Your task to perform on an android device: toggle javascript in the chrome app Image 0: 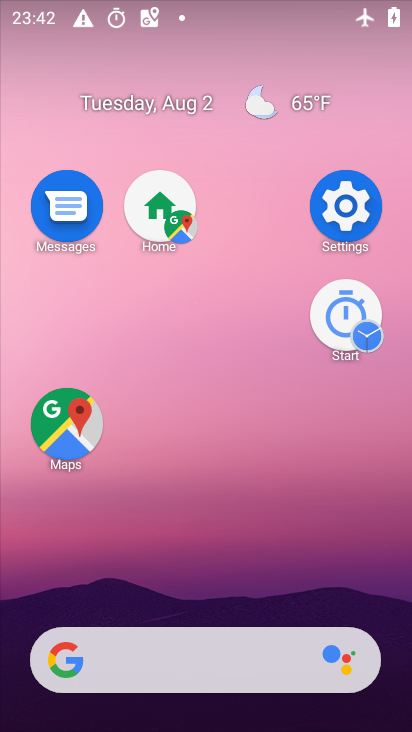
Step 0: drag from (273, 660) to (260, 294)
Your task to perform on an android device: toggle javascript in the chrome app Image 1: 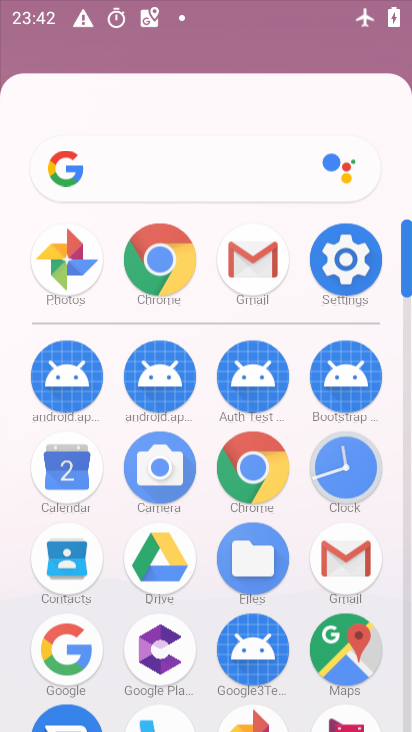
Step 1: drag from (242, 564) to (248, 243)
Your task to perform on an android device: toggle javascript in the chrome app Image 2: 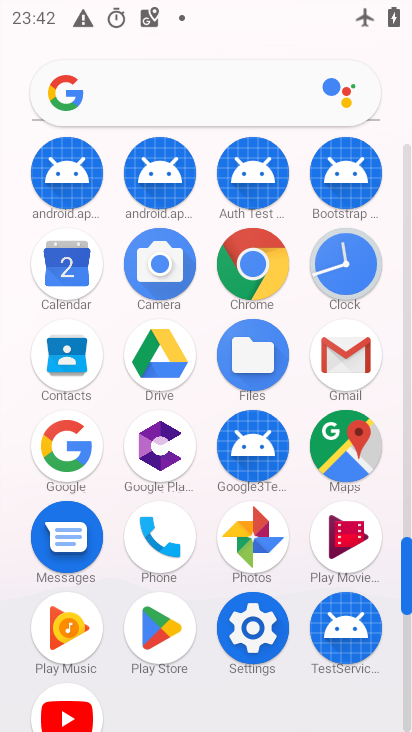
Step 2: click (266, 270)
Your task to perform on an android device: toggle javascript in the chrome app Image 3: 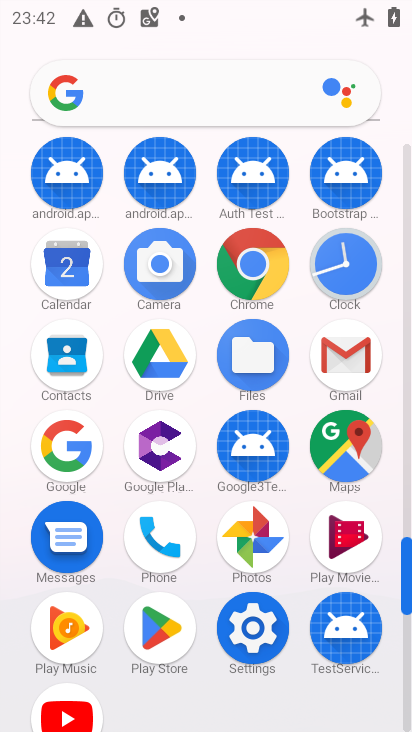
Step 3: click (260, 267)
Your task to perform on an android device: toggle javascript in the chrome app Image 4: 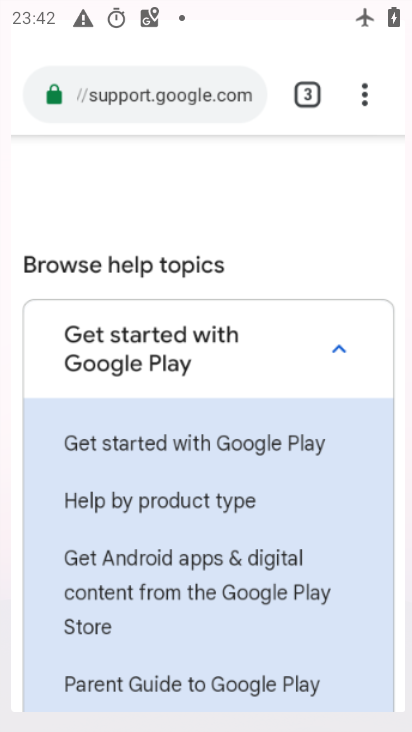
Step 4: click (233, 272)
Your task to perform on an android device: toggle javascript in the chrome app Image 5: 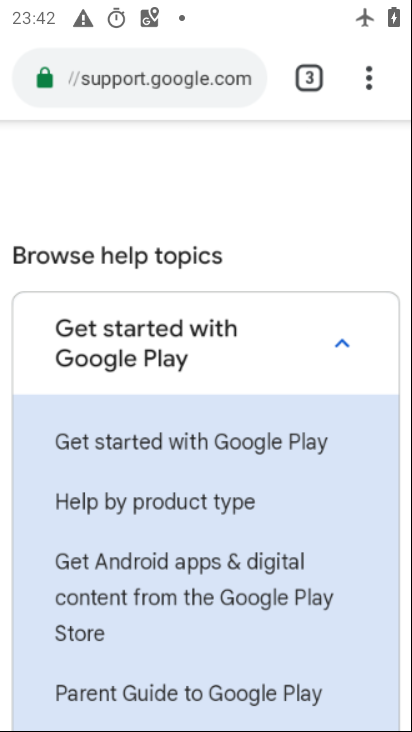
Step 5: click (209, 275)
Your task to perform on an android device: toggle javascript in the chrome app Image 6: 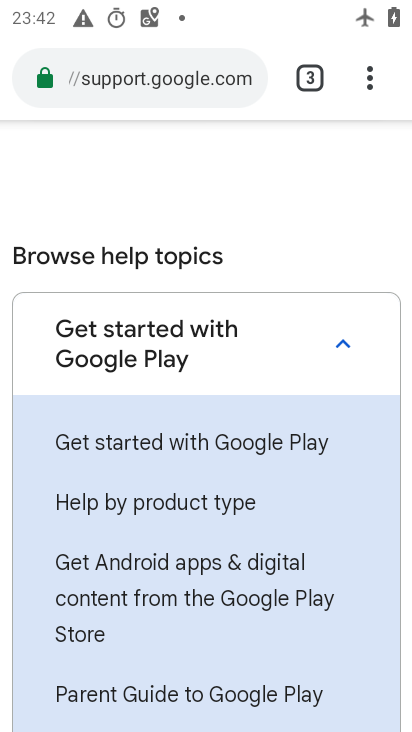
Step 6: click (272, 530)
Your task to perform on an android device: toggle javascript in the chrome app Image 7: 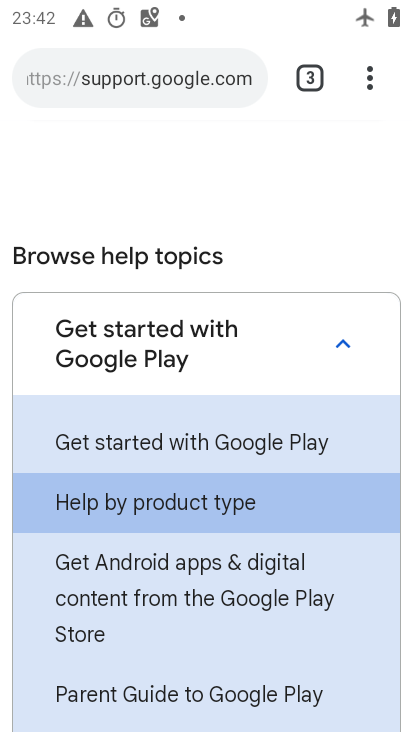
Step 7: click (284, 458)
Your task to perform on an android device: toggle javascript in the chrome app Image 8: 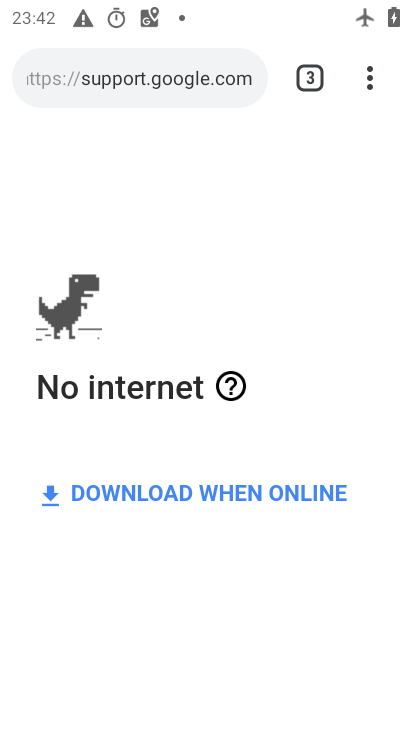
Step 8: drag from (368, 77) to (69, 614)
Your task to perform on an android device: toggle javascript in the chrome app Image 9: 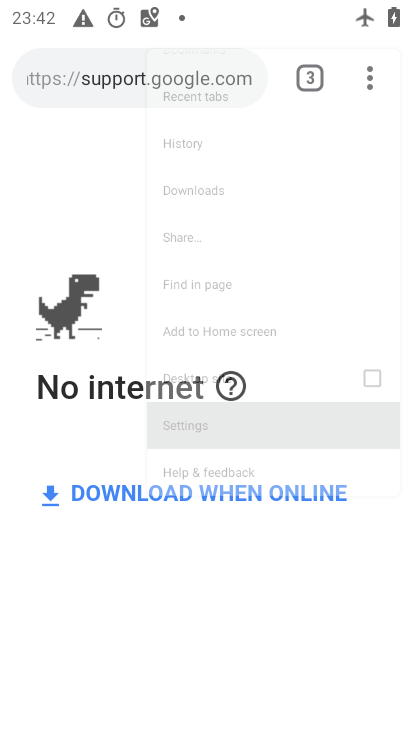
Step 9: click (66, 614)
Your task to perform on an android device: toggle javascript in the chrome app Image 10: 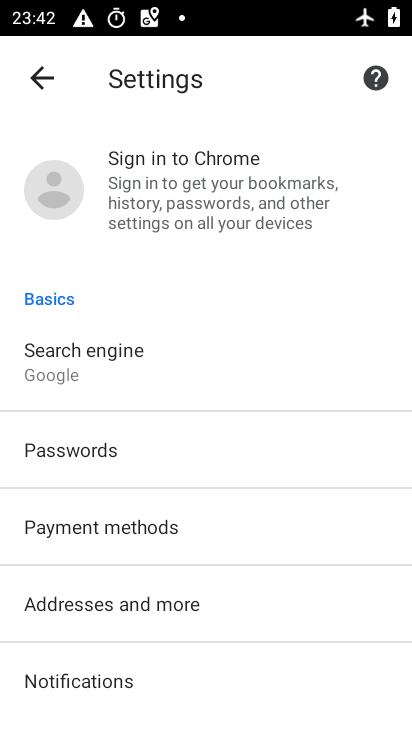
Step 10: drag from (122, 519) to (85, 259)
Your task to perform on an android device: toggle javascript in the chrome app Image 11: 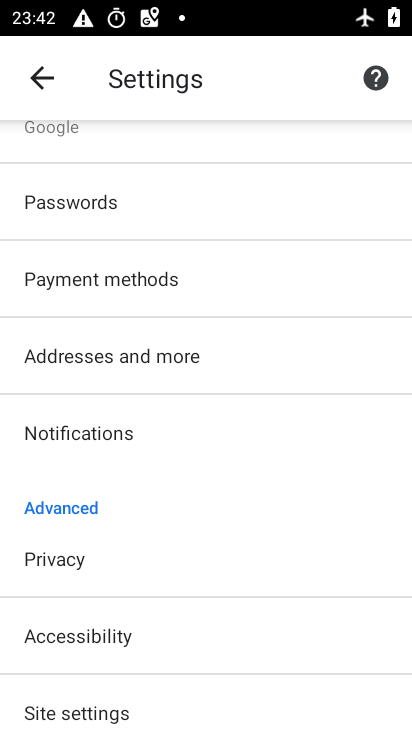
Step 11: drag from (119, 286) to (163, 285)
Your task to perform on an android device: toggle javascript in the chrome app Image 12: 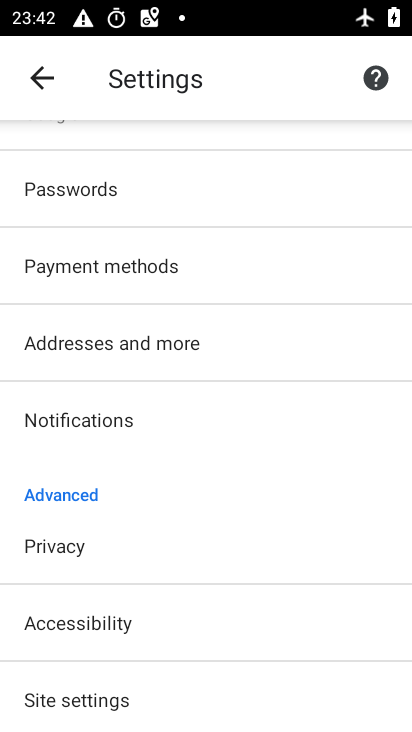
Step 12: click (145, 360)
Your task to perform on an android device: toggle javascript in the chrome app Image 13: 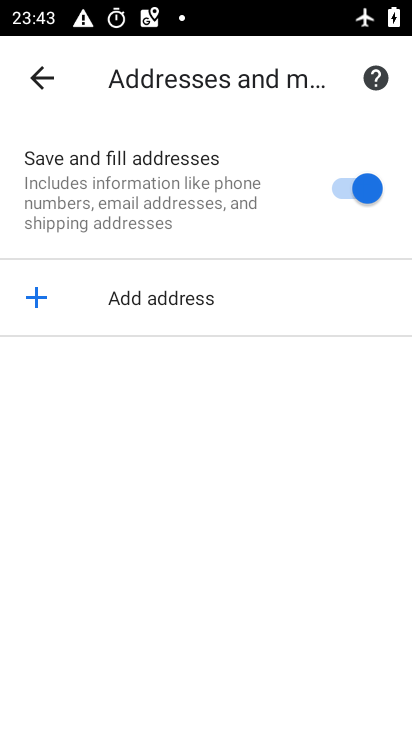
Step 13: click (75, 708)
Your task to perform on an android device: toggle javascript in the chrome app Image 14: 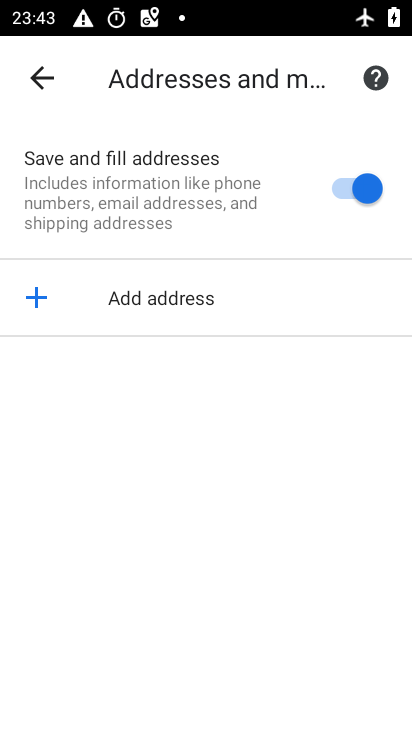
Step 14: click (58, 701)
Your task to perform on an android device: toggle javascript in the chrome app Image 15: 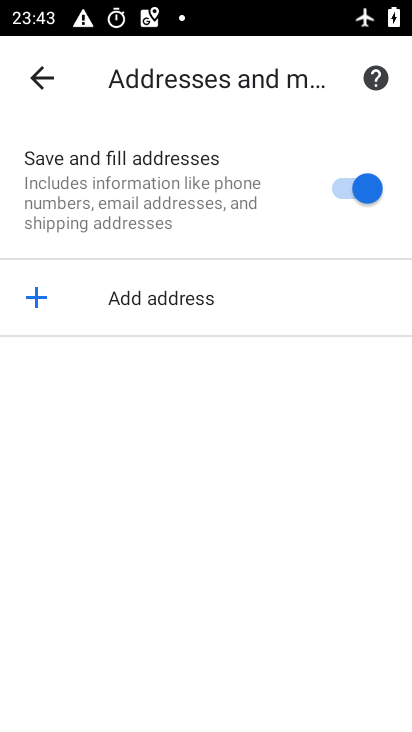
Step 15: click (33, 87)
Your task to perform on an android device: toggle javascript in the chrome app Image 16: 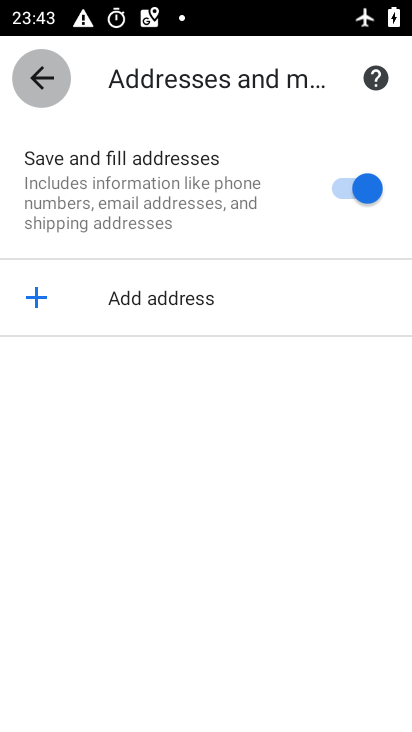
Step 16: click (37, 78)
Your task to perform on an android device: toggle javascript in the chrome app Image 17: 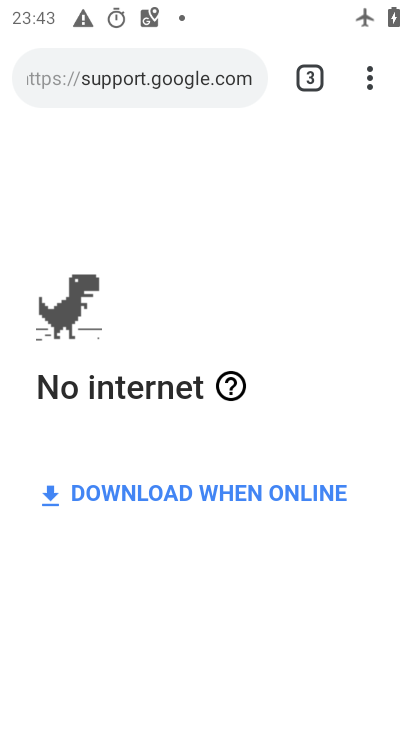
Step 17: drag from (368, 78) to (64, 614)
Your task to perform on an android device: toggle javascript in the chrome app Image 18: 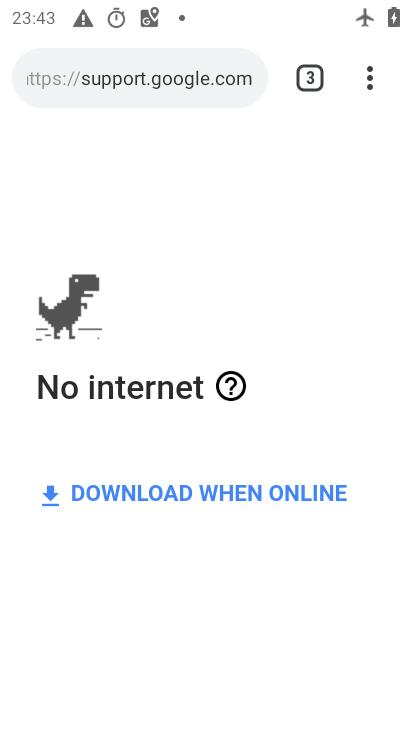
Step 18: click (65, 614)
Your task to perform on an android device: toggle javascript in the chrome app Image 19: 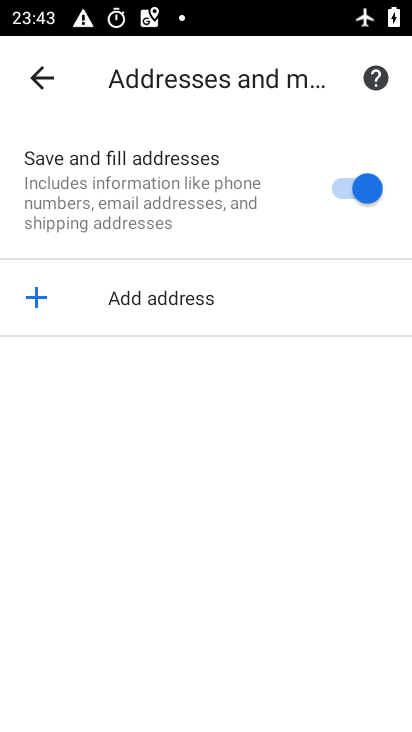
Step 19: click (45, 68)
Your task to perform on an android device: toggle javascript in the chrome app Image 20: 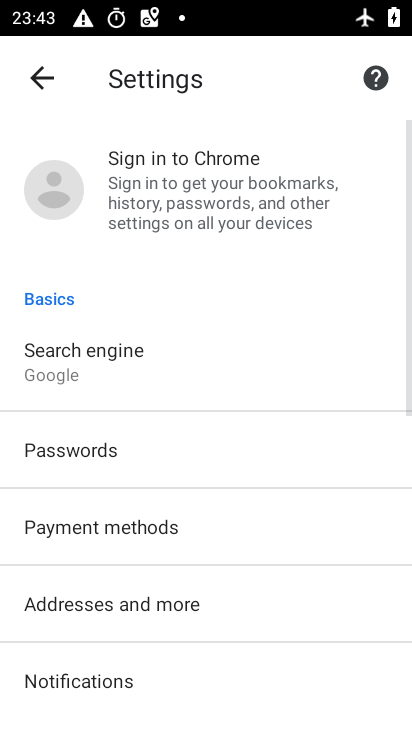
Step 20: drag from (119, 648) to (129, 315)
Your task to perform on an android device: toggle javascript in the chrome app Image 21: 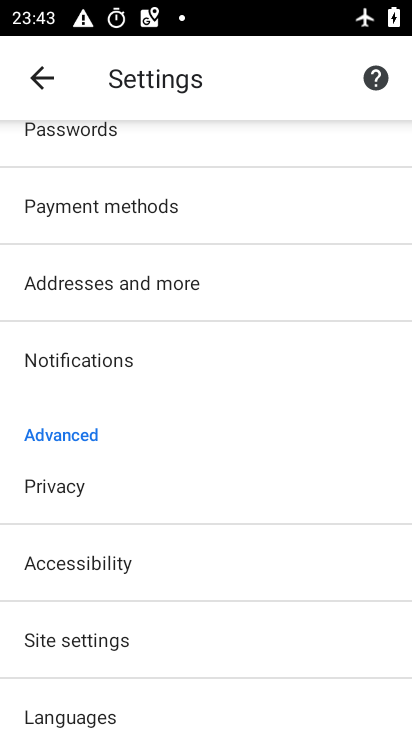
Step 21: click (56, 639)
Your task to perform on an android device: toggle javascript in the chrome app Image 22: 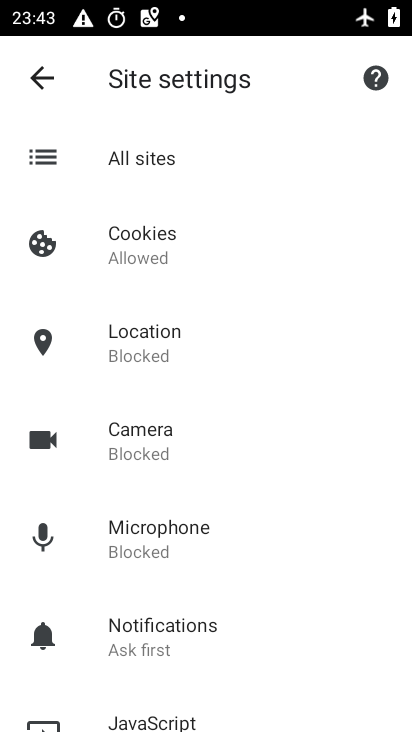
Step 22: drag from (171, 610) to (178, 247)
Your task to perform on an android device: toggle javascript in the chrome app Image 23: 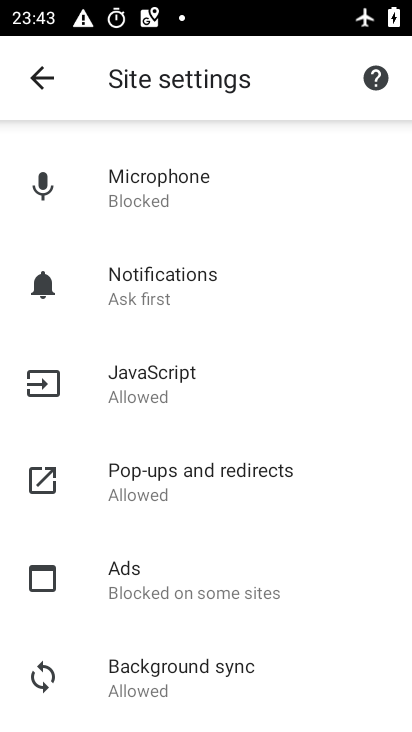
Step 23: click (139, 377)
Your task to perform on an android device: toggle javascript in the chrome app Image 24: 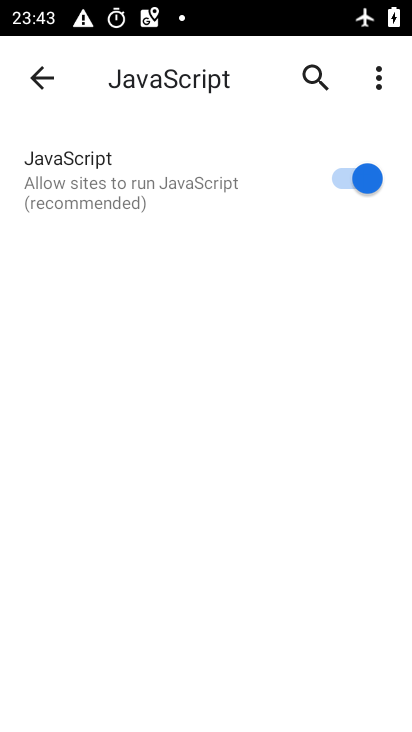
Step 24: task complete